Your task to perform on an android device: Is it going to rain this weekend? Image 0: 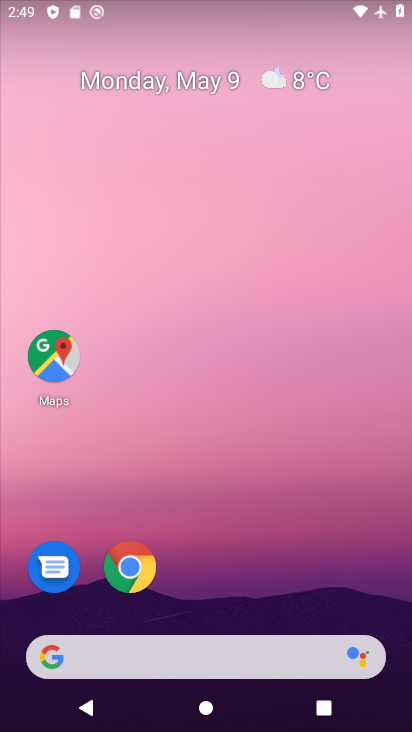
Step 0: drag from (266, 483) to (271, 29)
Your task to perform on an android device: Is it going to rain this weekend? Image 1: 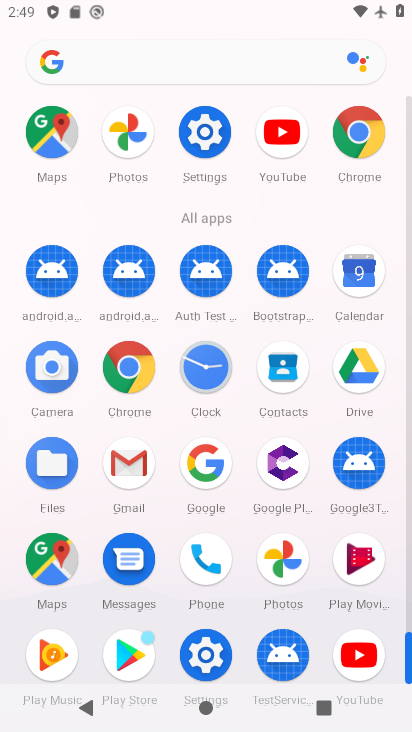
Step 1: drag from (8, 513) to (13, 227)
Your task to perform on an android device: Is it going to rain this weekend? Image 2: 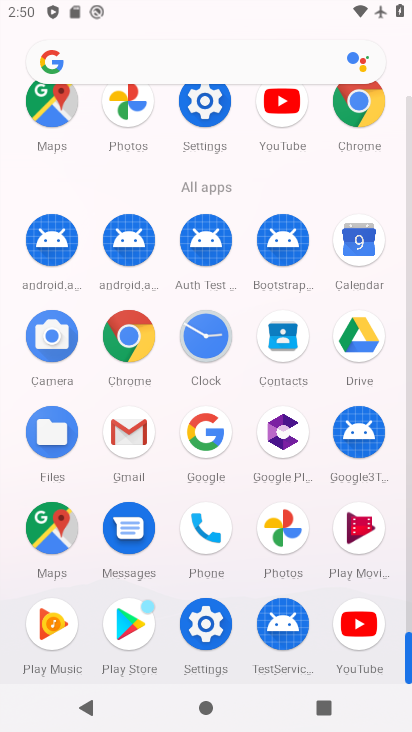
Step 2: click (125, 333)
Your task to perform on an android device: Is it going to rain this weekend? Image 3: 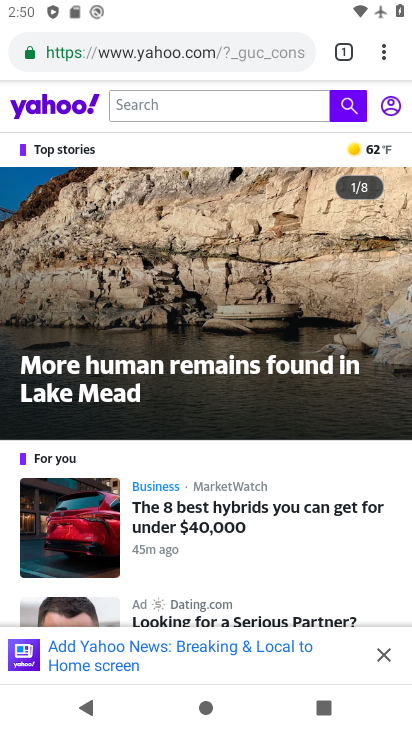
Step 3: click (178, 44)
Your task to perform on an android device: Is it going to rain this weekend? Image 4: 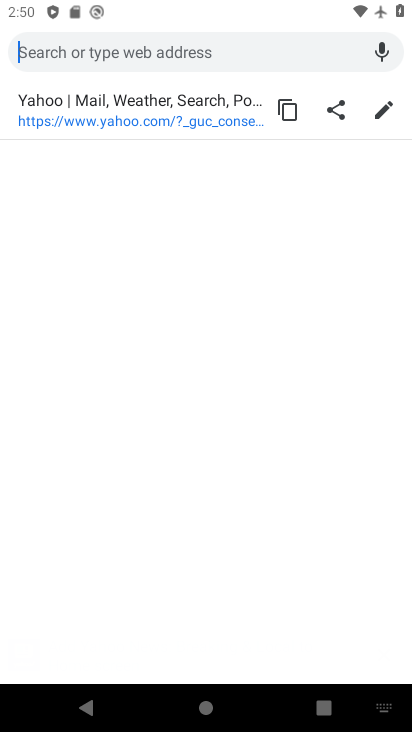
Step 4: type "Is it going to rain this weekend?"
Your task to perform on an android device: Is it going to rain this weekend? Image 5: 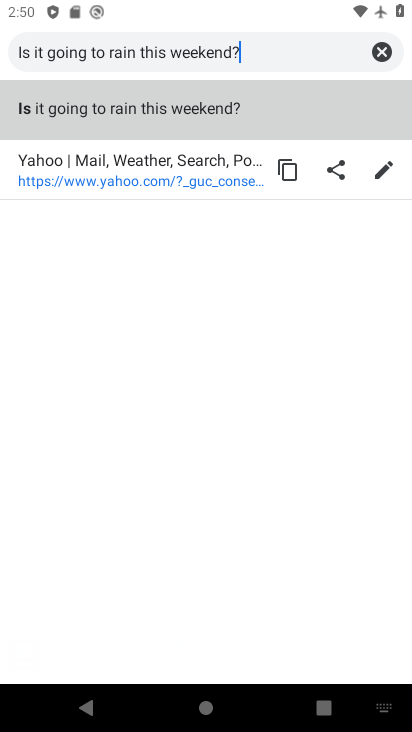
Step 5: type ""
Your task to perform on an android device: Is it going to rain this weekend? Image 6: 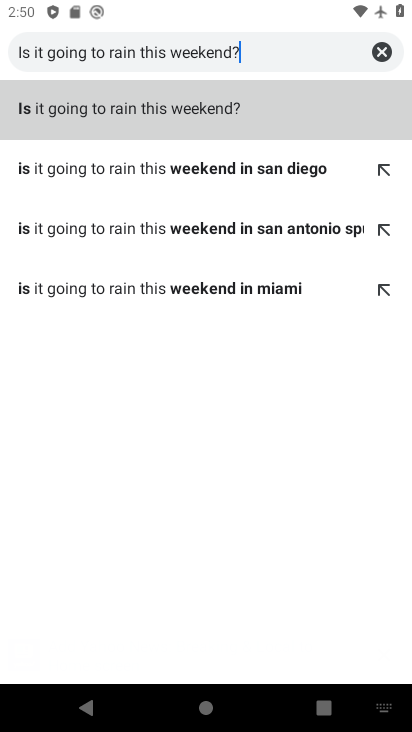
Step 6: click (161, 114)
Your task to perform on an android device: Is it going to rain this weekend? Image 7: 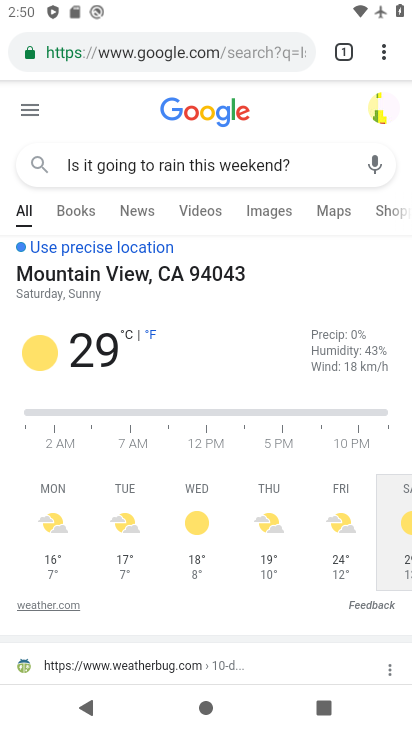
Step 7: task complete